Your task to perform on an android device: Go to privacy settings Image 0: 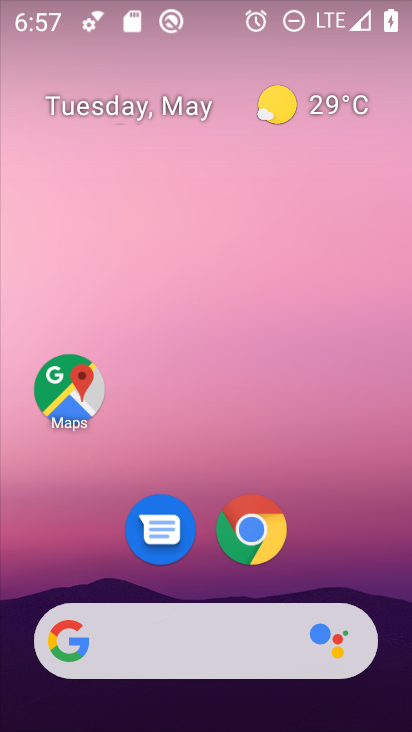
Step 0: drag from (391, 628) to (282, 72)
Your task to perform on an android device: Go to privacy settings Image 1: 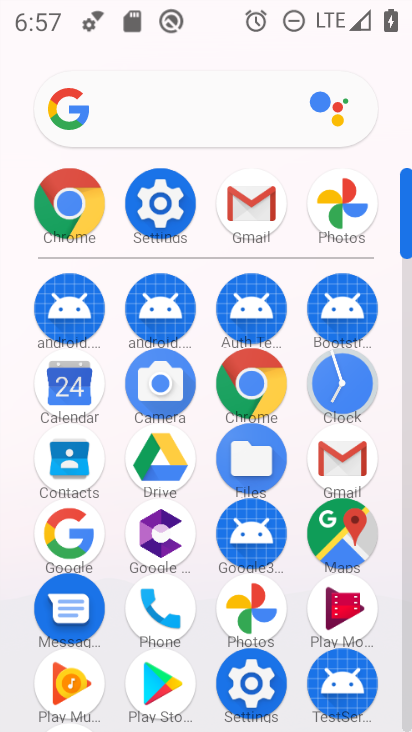
Step 1: click (170, 221)
Your task to perform on an android device: Go to privacy settings Image 2: 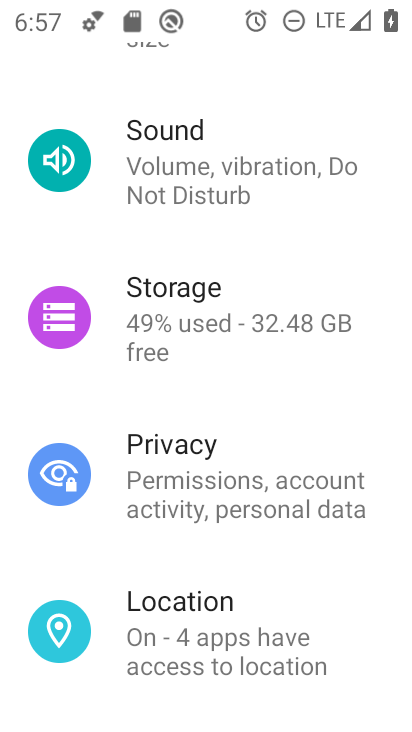
Step 2: click (196, 485)
Your task to perform on an android device: Go to privacy settings Image 3: 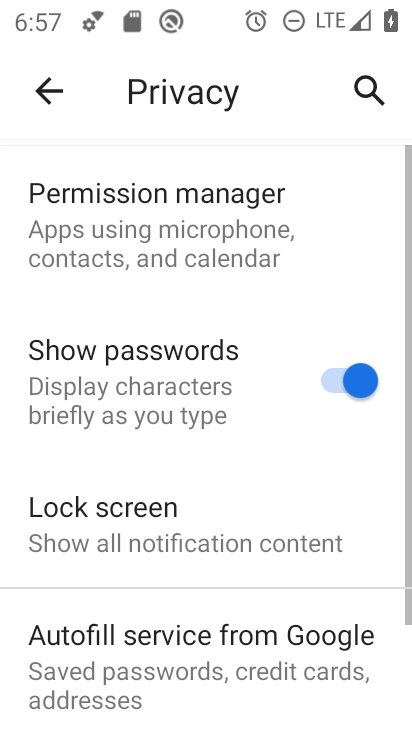
Step 3: task complete